Your task to perform on an android device: Go to calendar. Show me events next week Image 0: 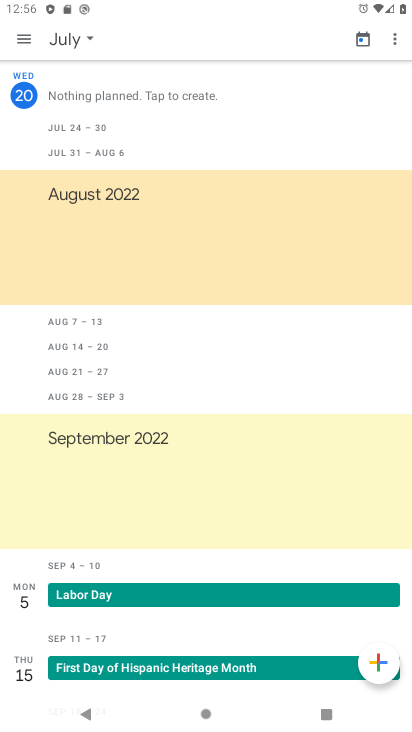
Step 0: task complete